Your task to perform on an android device: open app "Spotify" Image 0: 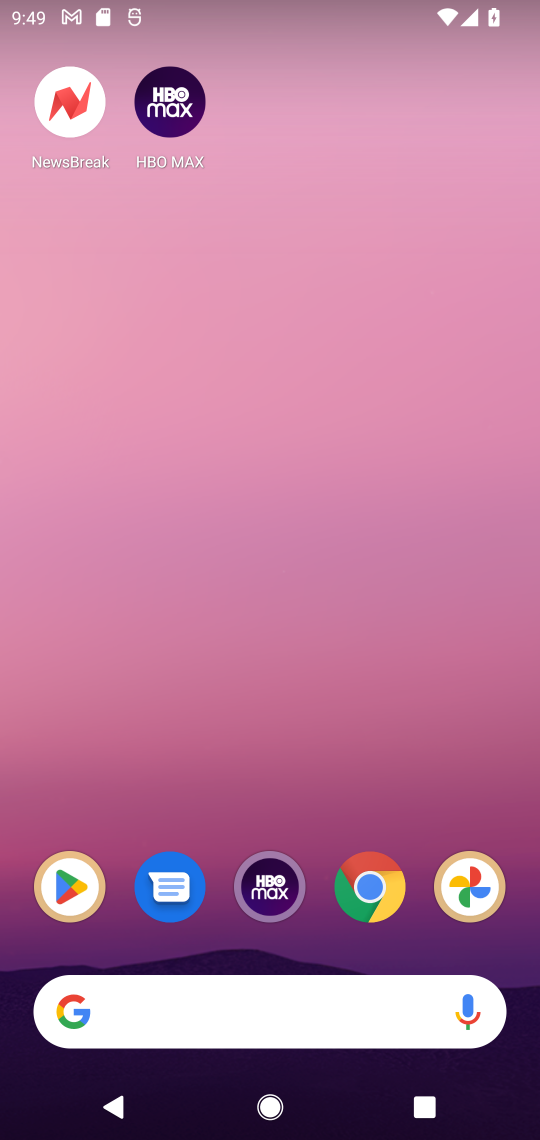
Step 0: click (78, 899)
Your task to perform on an android device: open app "Spotify" Image 1: 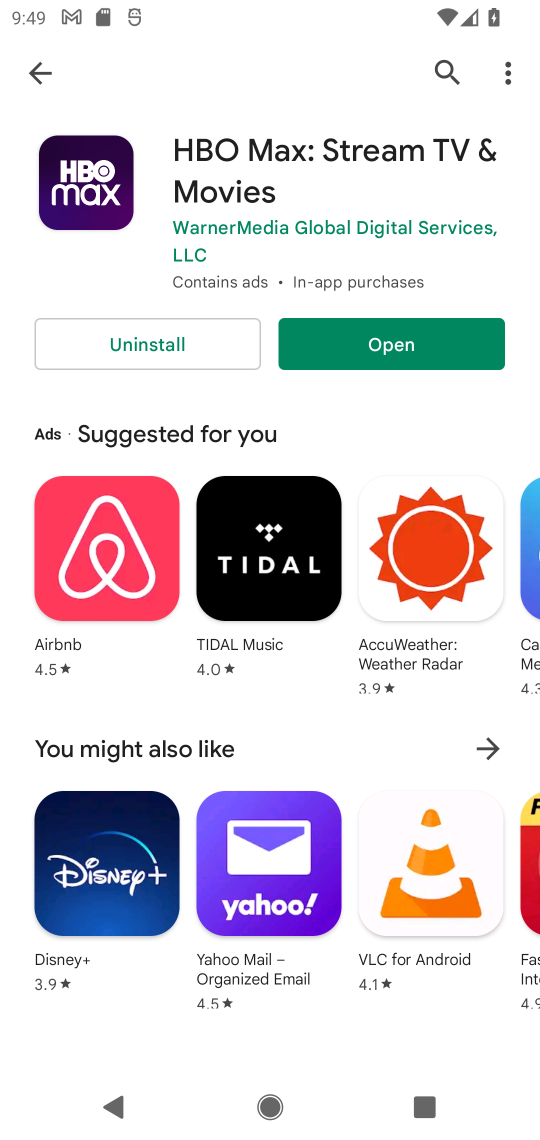
Step 1: click (454, 83)
Your task to perform on an android device: open app "Spotify" Image 2: 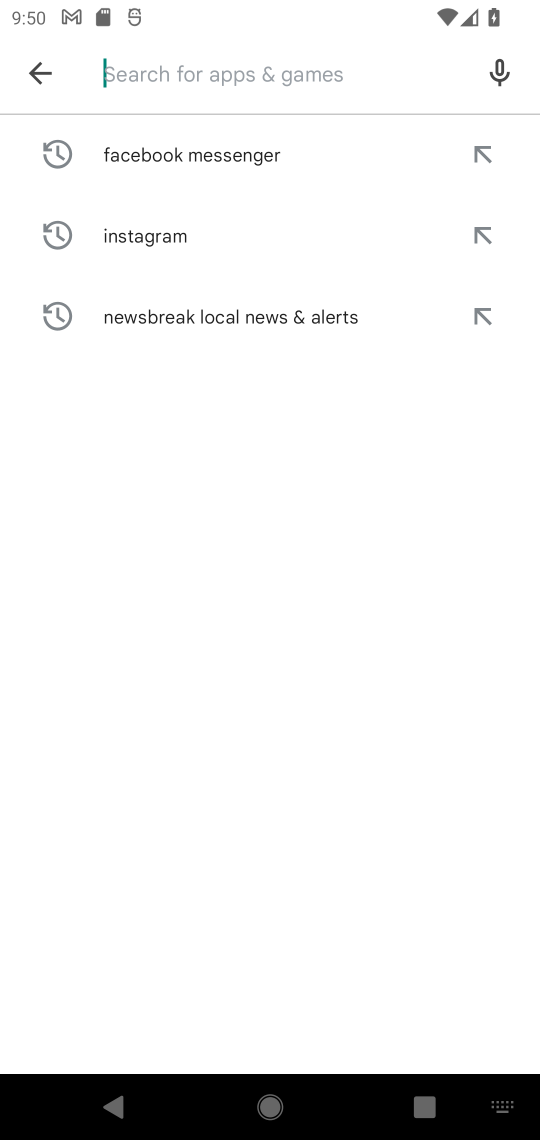
Step 2: type "spotify"
Your task to perform on an android device: open app "Spotify" Image 3: 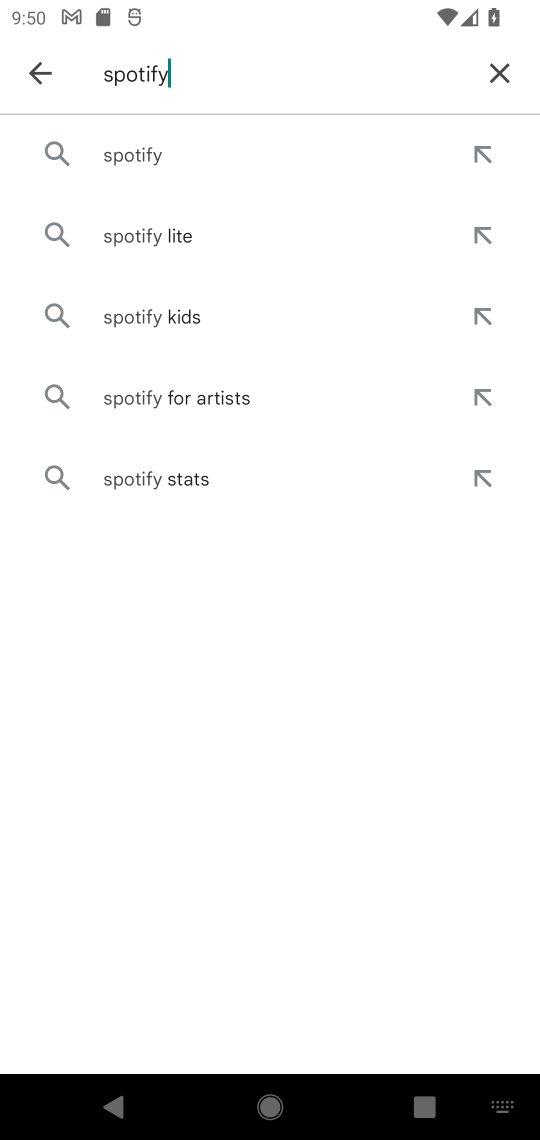
Step 3: click (440, 138)
Your task to perform on an android device: open app "Spotify" Image 4: 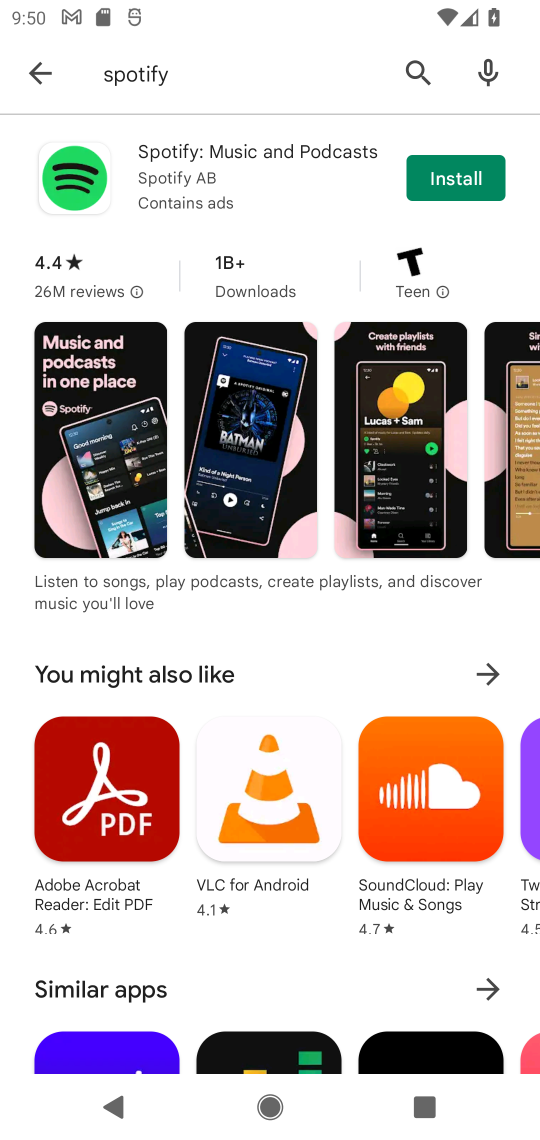
Step 4: click (215, 156)
Your task to perform on an android device: open app "Spotify" Image 5: 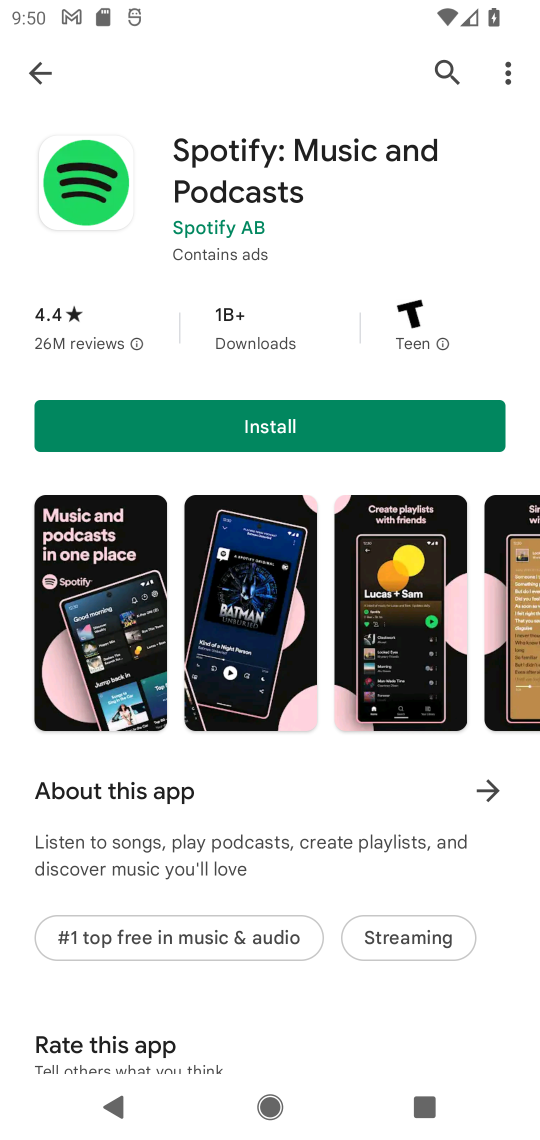
Step 5: task complete